Your task to perform on an android device: turn off location history Image 0: 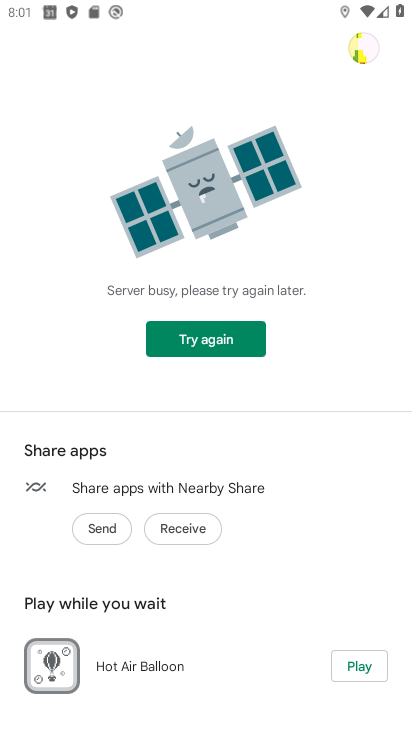
Step 0: press home button
Your task to perform on an android device: turn off location history Image 1: 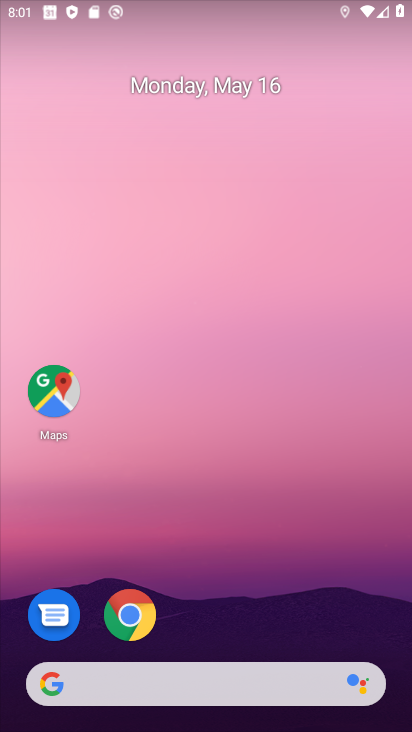
Step 1: drag from (193, 640) to (220, 249)
Your task to perform on an android device: turn off location history Image 2: 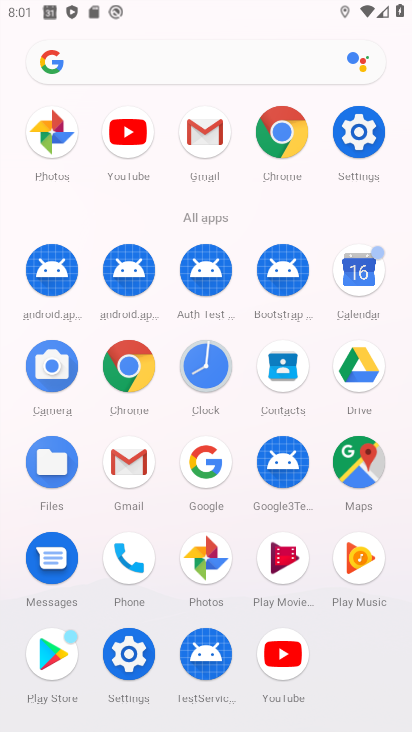
Step 2: click (356, 134)
Your task to perform on an android device: turn off location history Image 3: 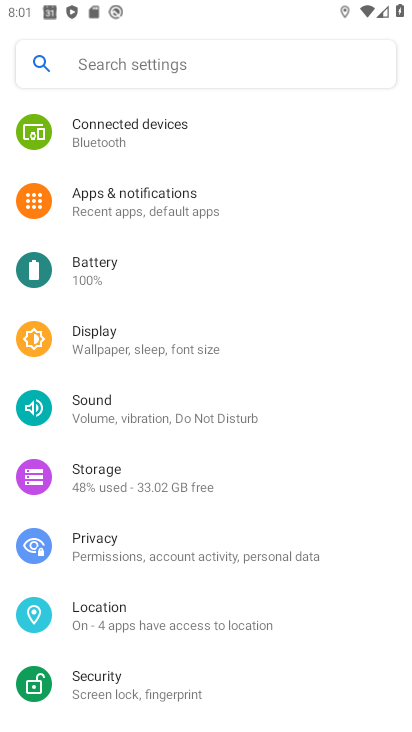
Step 3: click (148, 608)
Your task to perform on an android device: turn off location history Image 4: 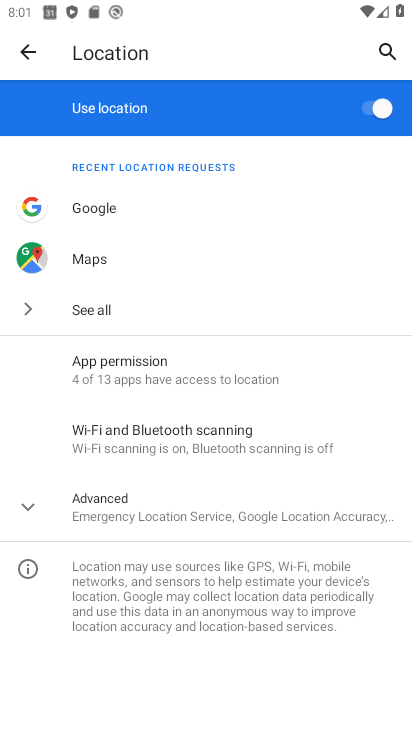
Step 4: click (369, 107)
Your task to perform on an android device: turn off location history Image 5: 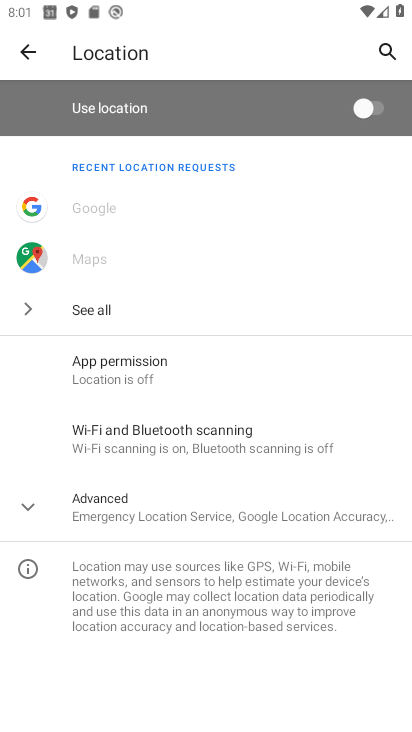
Step 5: task complete